Your task to perform on an android device: Search for sushi restaurants on Maps Image 0: 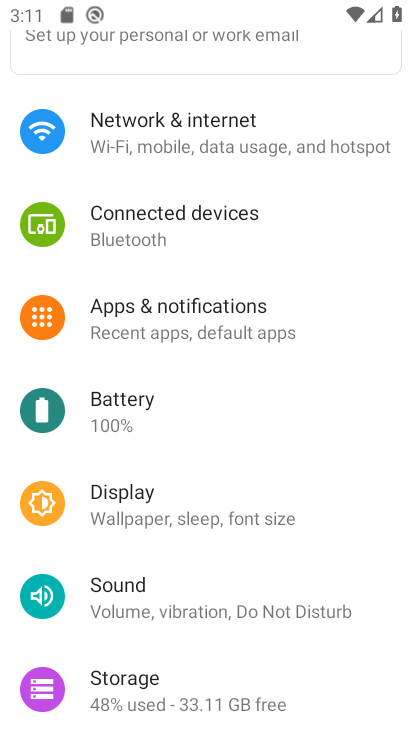
Step 0: press back button
Your task to perform on an android device: Search for sushi restaurants on Maps Image 1: 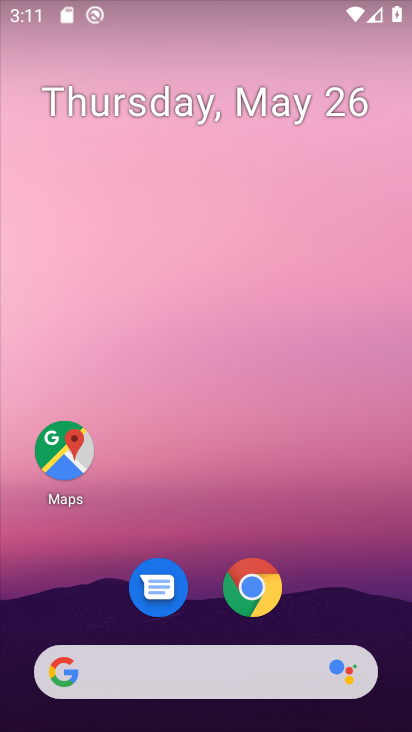
Step 1: click (76, 464)
Your task to perform on an android device: Search for sushi restaurants on Maps Image 2: 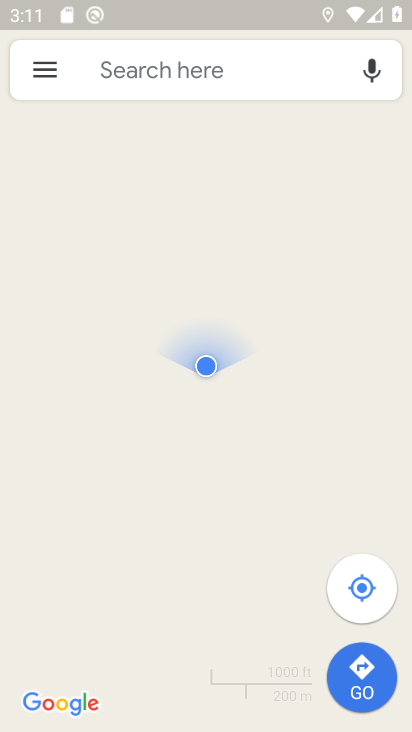
Step 2: click (136, 74)
Your task to perform on an android device: Search for sushi restaurants on Maps Image 3: 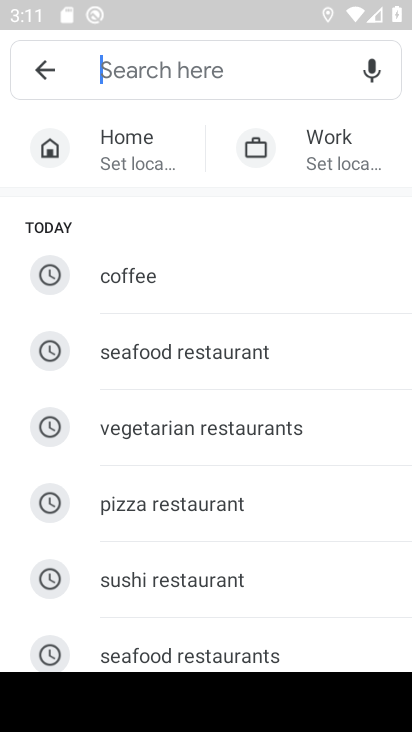
Step 3: type "sushi restaurants"
Your task to perform on an android device: Search for sushi restaurants on Maps Image 4: 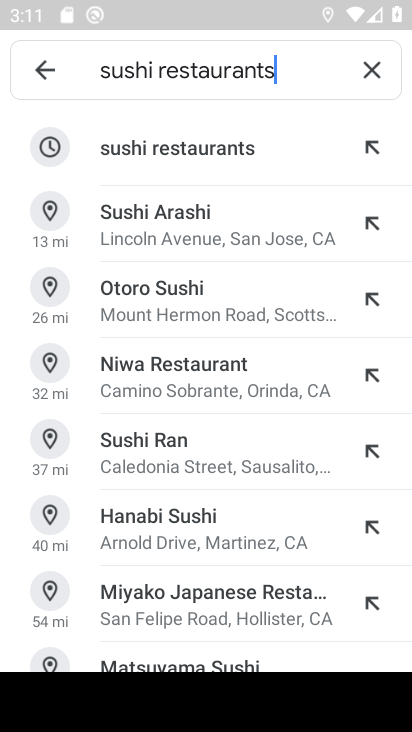
Step 4: click (249, 147)
Your task to perform on an android device: Search for sushi restaurants on Maps Image 5: 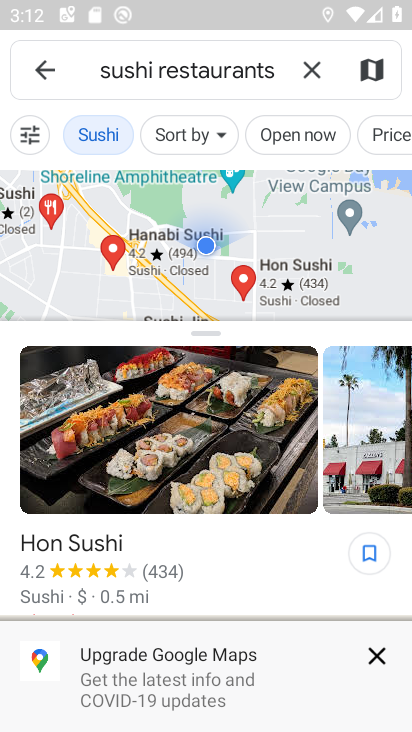
Step 5: task complete